Your task to perform on an android device: turn on sleep mode Image 0: 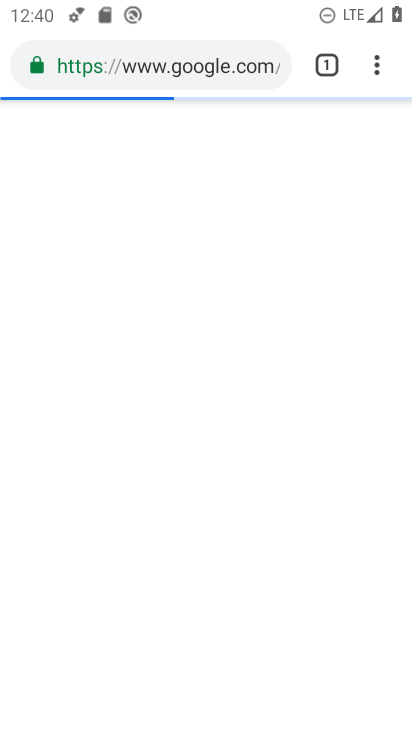
Step 0: press home button
Your task to perform on an android device: turn on sleep mode Image 1: 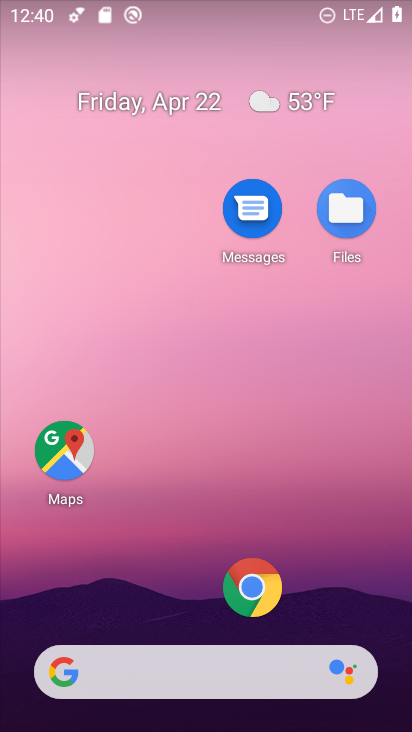
Step 1: drag from (173, 595) to (269, 215)
Your task to perform on an android device: turn on sleep mode Image 2: 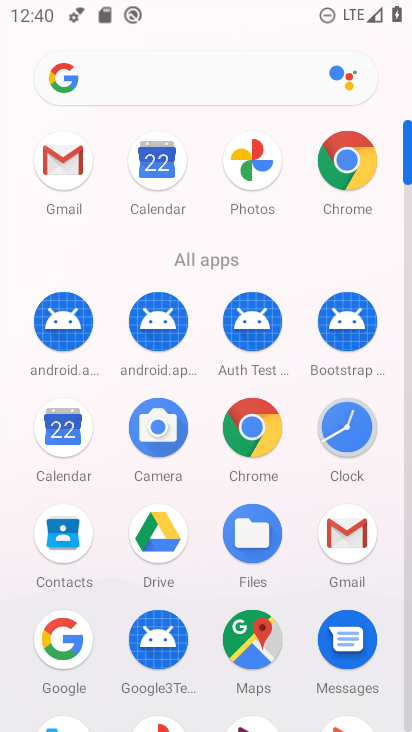
Step 2: drag from (216, 675) to (301, 274)
Your task to perform on an android device: turn on sleep mode Image 3: 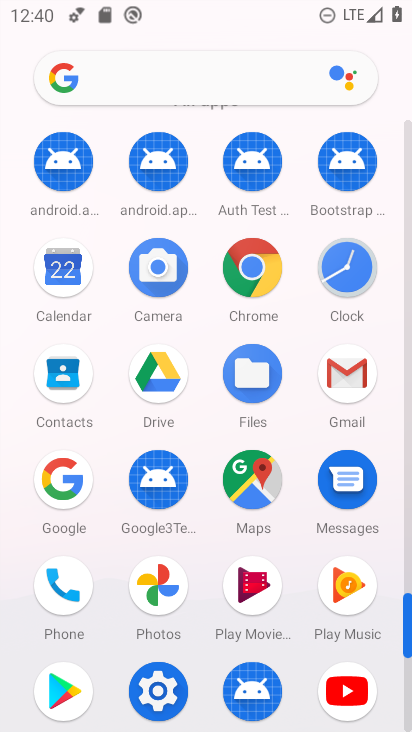
Step 3: click (167, 677)
Your task to perform on an android device: turn on sleep mode Image 4: 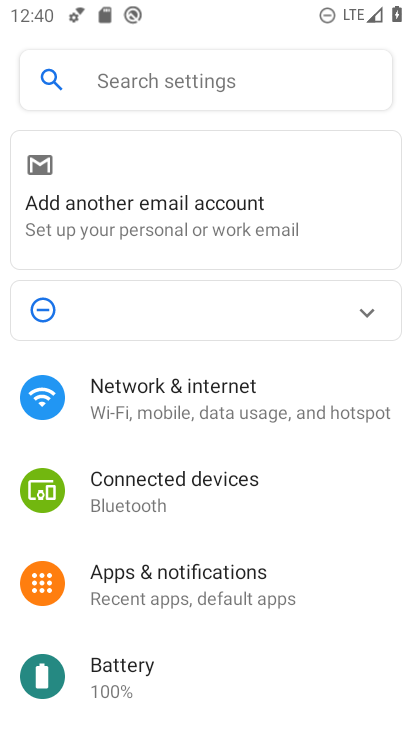
Step 4: drag from (182, 686) to (311, 364)
Your task to perform on an android device: turn on sleep mode Image 5: 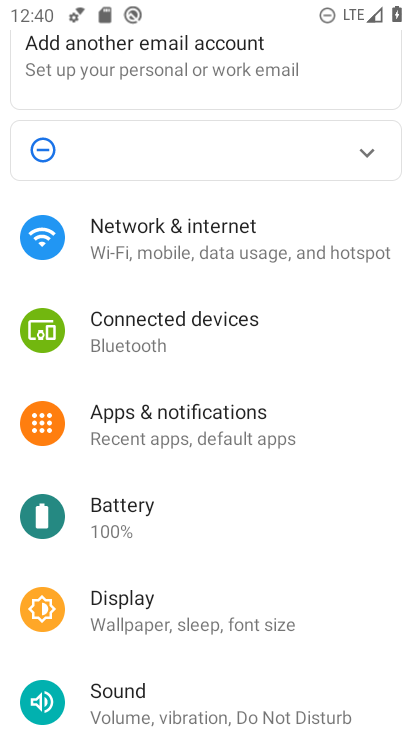
Step 5: click (213, 595)
Your task to perform on an android device: turn on sleep mode Image 6: 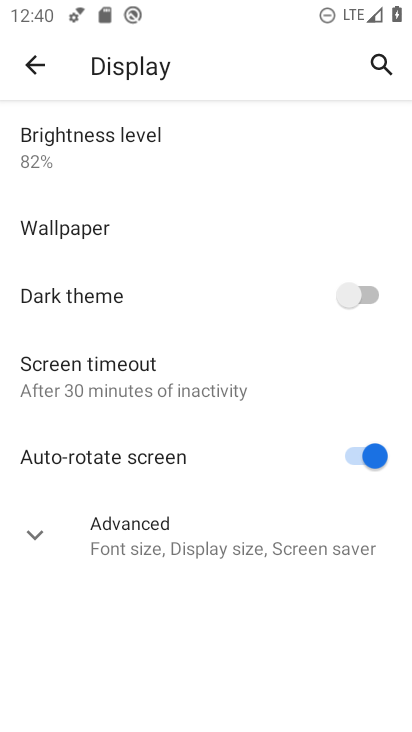
Step 6: task complete